Your task to perform on an android device: Open Google Chrome Image 0: 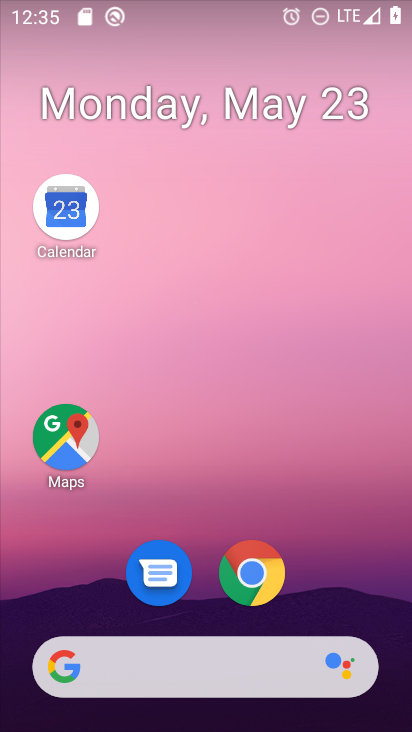
Step 0: click (253, 578)
Your task to perform on an android device: Open Google Chrome Image 1: 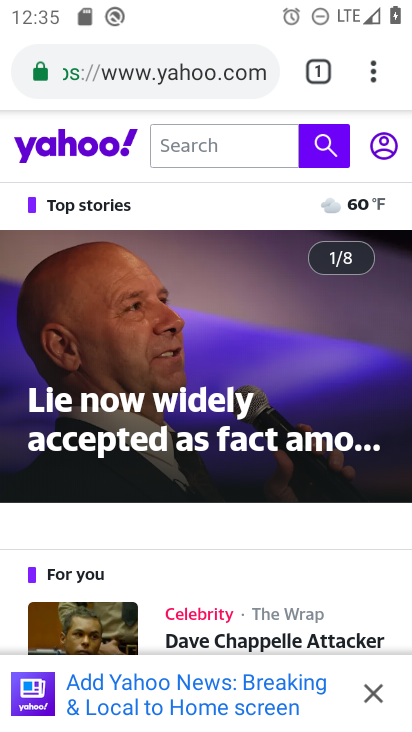
Step 1: task complete